Your task to perform on an android device: make emails show in primary in the gmail app Image 0: 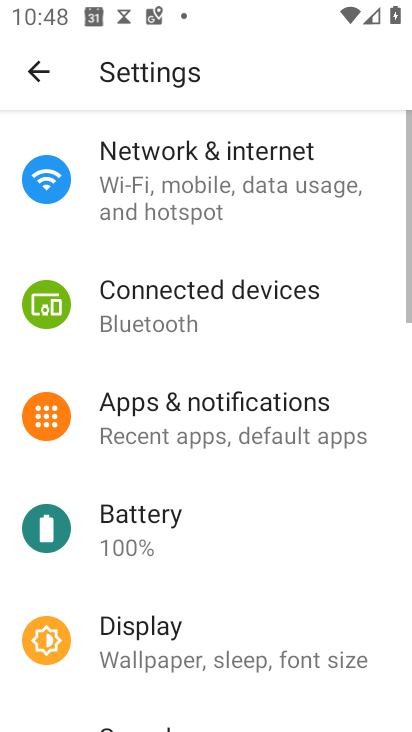
Step 0: drag from (294, 557) to (158, 207)
Your task to perform on an android device: make emails show in primary in the gmail app Image 1: 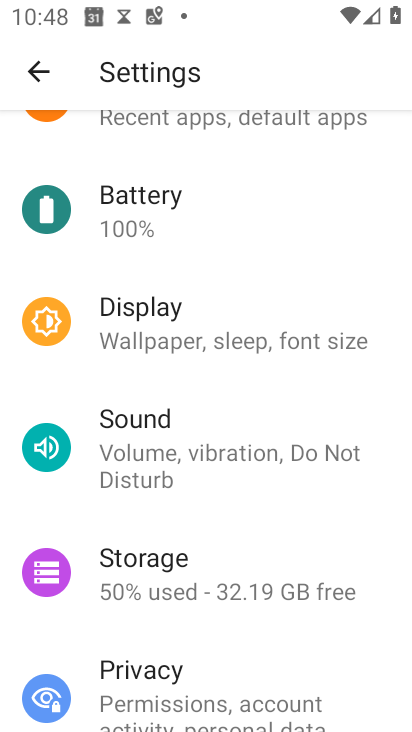
Step 1: press home button
Your task to perform on an android device: make emails show in primary in the gmail app Image 2: 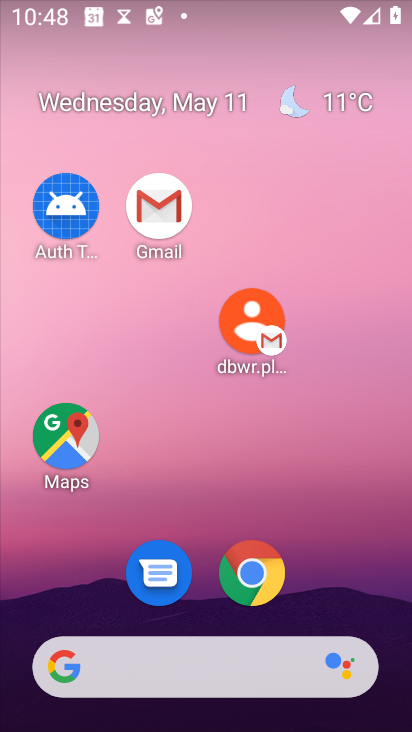
Step 2: drag from (273, 512) to (104, 198)
Your task to perform on an android device: make emails show in primary in the gmail app Image 3: 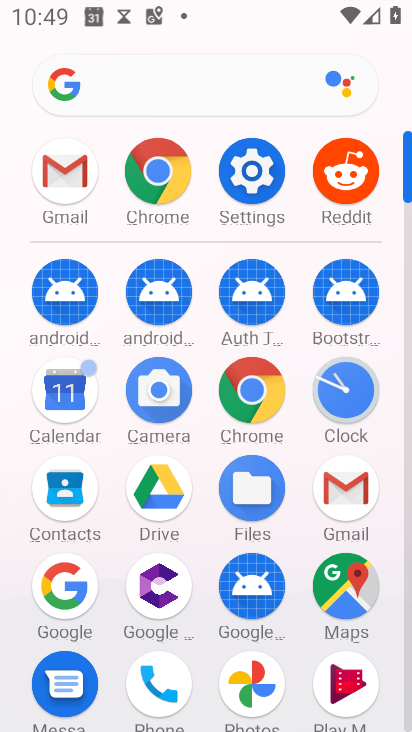
Step 3: click (353, 490)
Your task to perform on an android device: make emails show in primary in the gmail app Image 4: 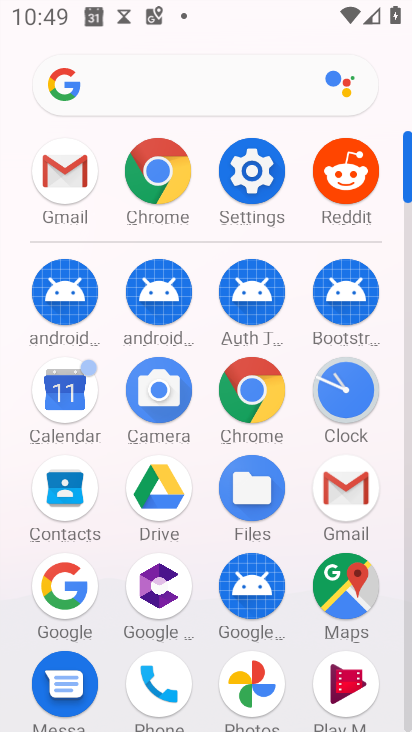
Step 4: click (353, 490)
Your task to perform on an android device: make emails show in primary in the gmail app Image 5: 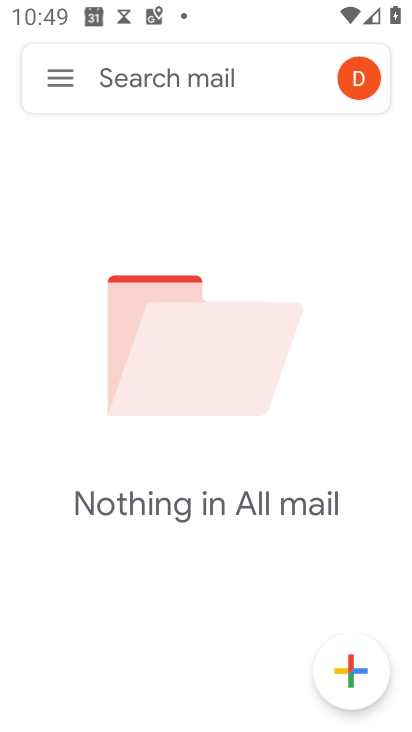
Step 5: click (42, 67)
Your task to perform on an android device: make emails show in primary in the gmail app Image 6: 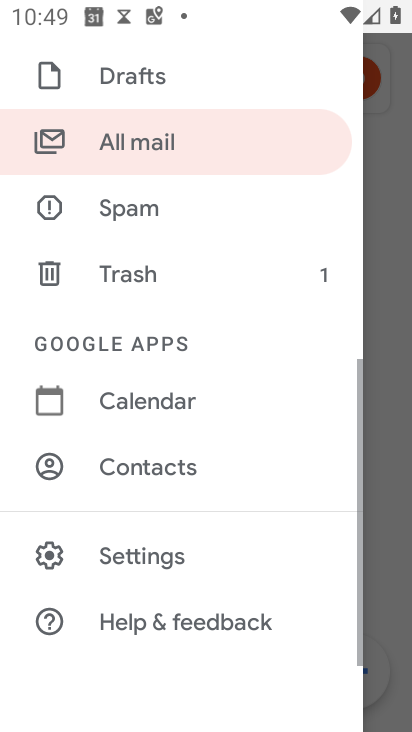
Step 6: click (125, 151)
Your task to perform on an android device: make emails show in primary in the gmail app Image 7: 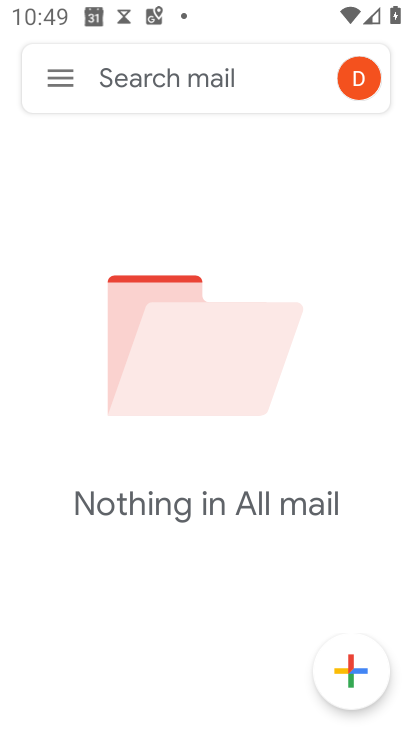
Step 7: task complete